Your task to perform on an android device: What's the weather going to be this weekend? Image 0: 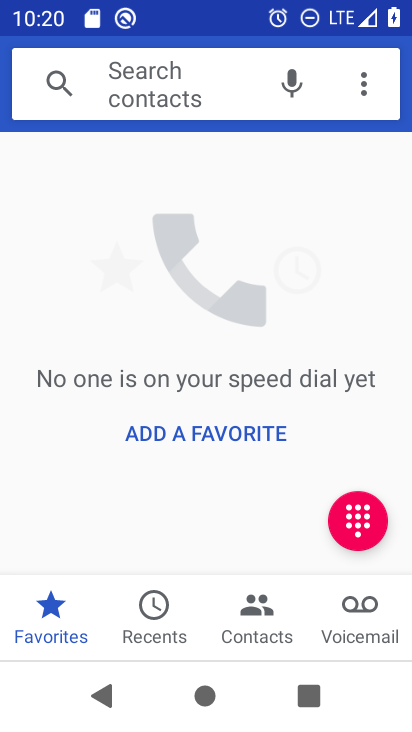
Step 0: press home button
Your task to perform on an android device: What's the weather going to be this weekend? Image 1: 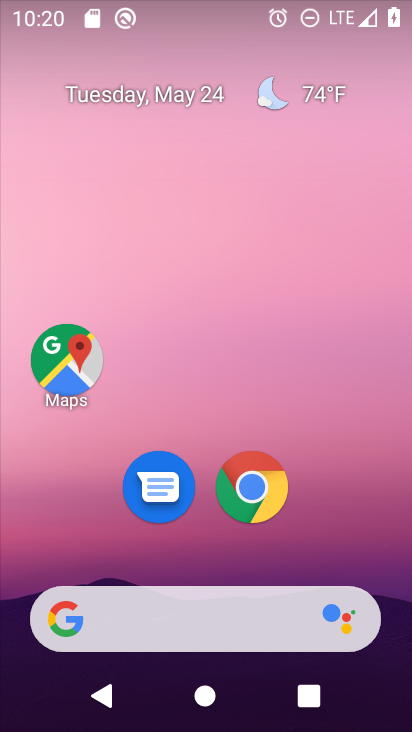
Step 1: click (334, 97)
Your task to perform on an android device: What's the weather going to be this weekend? Image 2: 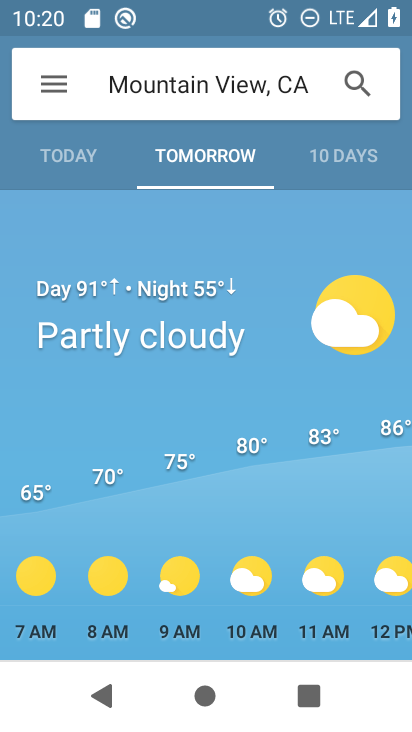
Step 2: click (344, 162)
Your task to perform on an android device: What's the weather going to be this weekend? Image 3: 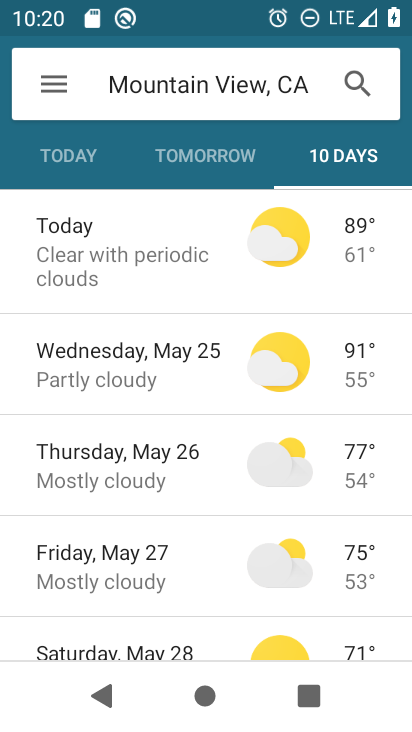
Step 3: task complete